Your task to perform on an android device: Open Google Image 0: 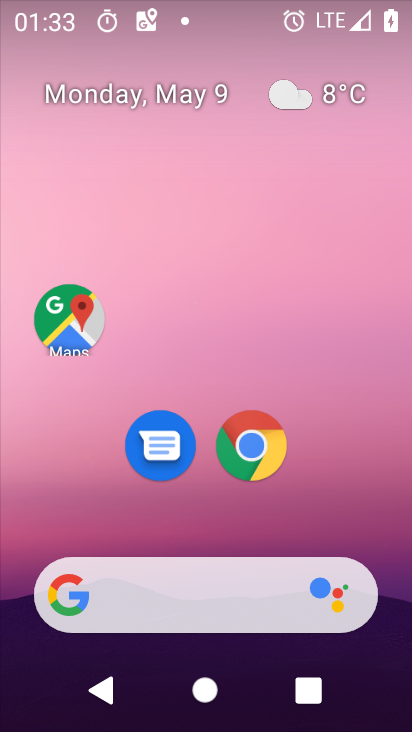
Step 0: drag from (378, 509) to (386, 14)
Your task to perform on an android device: Open Google Image 1: 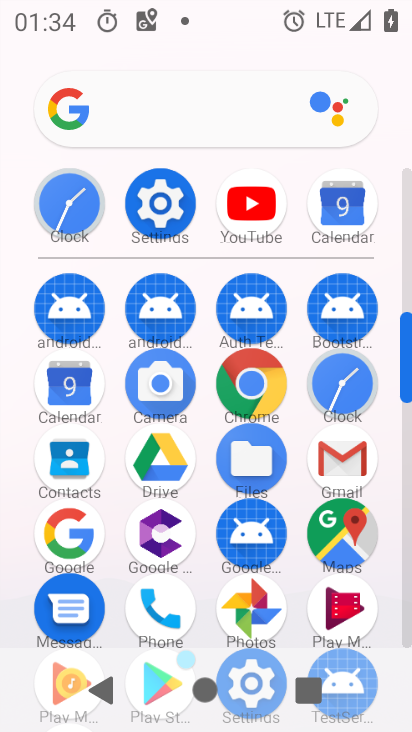
Step 1: click (74, 540)
Your task to perform on an android device: Open Google Image 2: 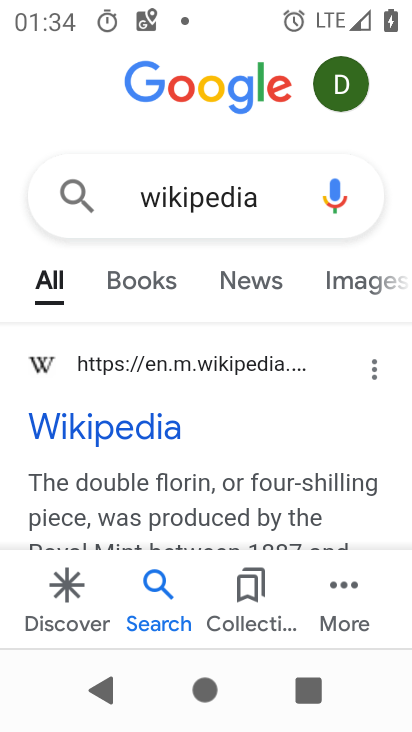
Step 2: task complete